Your task to perform on an android device: open chrome and create a bookmark for the current page Image 0: 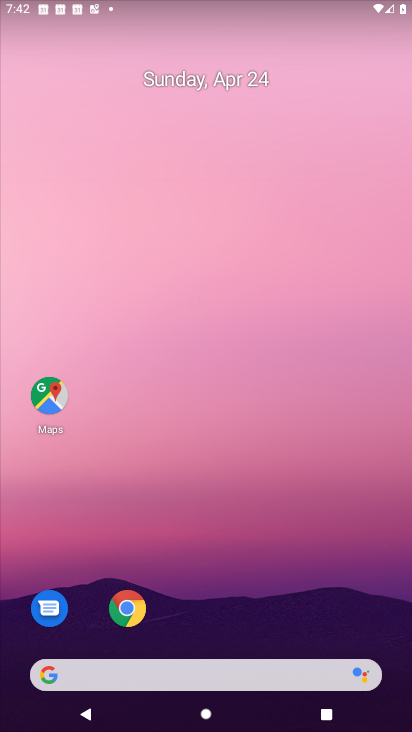
Step 0: drag from (232, 595) to (250, 141)
Your task to perform on an android device: open chrome and create a bookmark for the current page Image 1: 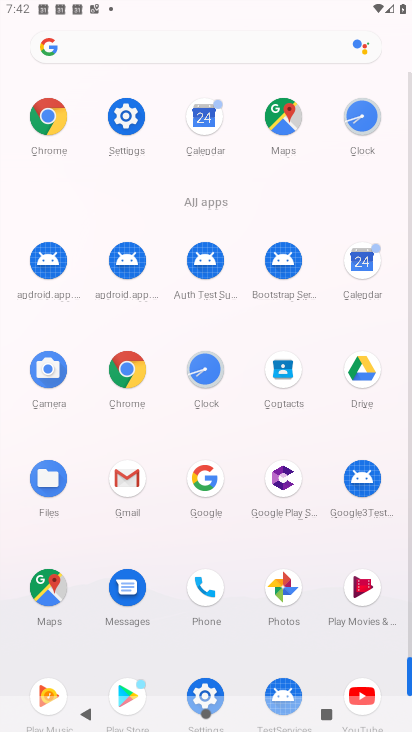
Step 1: click (122, 382)
Your task to perform on an android device: open chrome and create a bookmark for the current page Image 2: 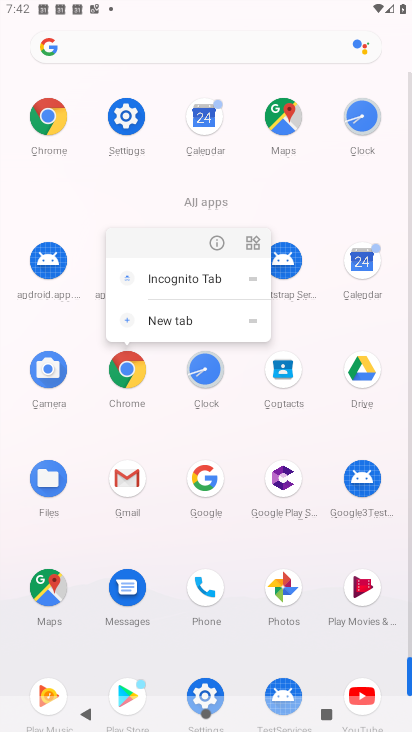
Step 2: click (124, 371)
Your task to perform on an android device: open chrome and create a bookmark for the current page Image 3: 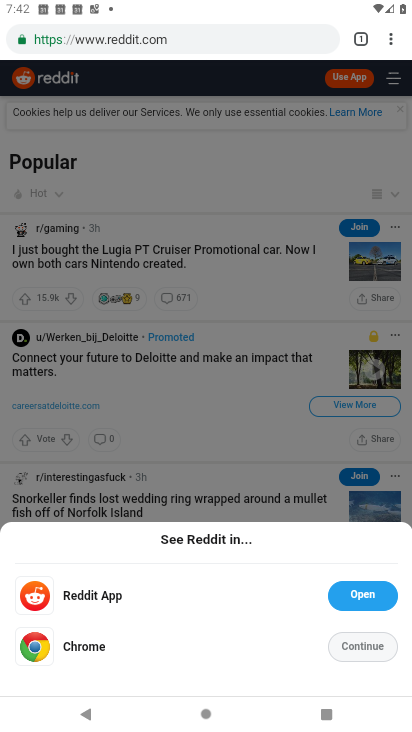
Step 3: click (278, 24)
Your task to perform on an android device: open chrome and create a bookmark for the current page Image 4: 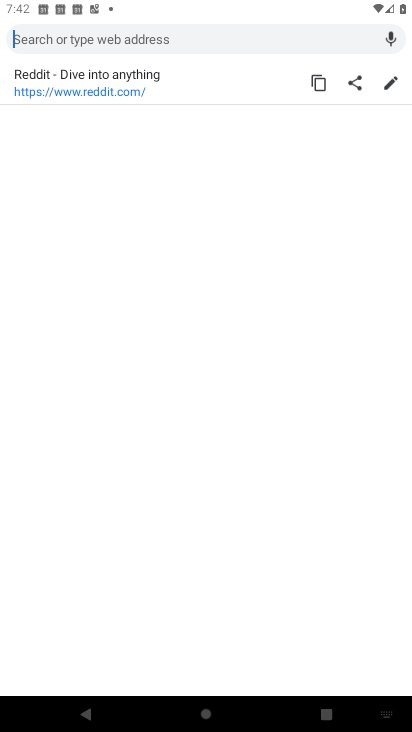
Step 4: press back button
Your task to perform on an android device: open chrome and create a bookmark for the current page Image 5: 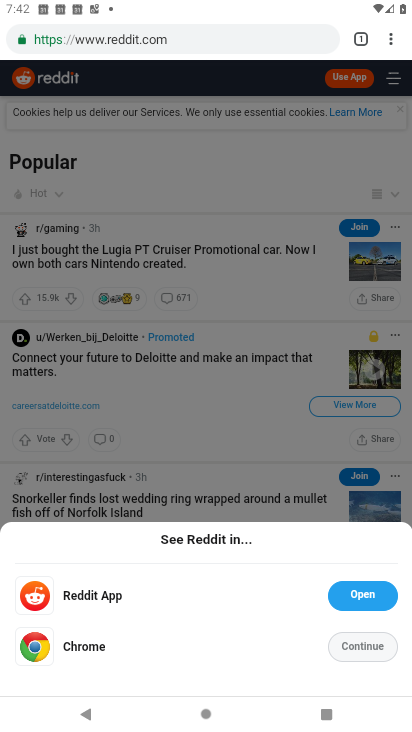
Step 5: click (394, 36)
Your task to perform on an android device: open chrome and create a bookmark for the current page Image 6: 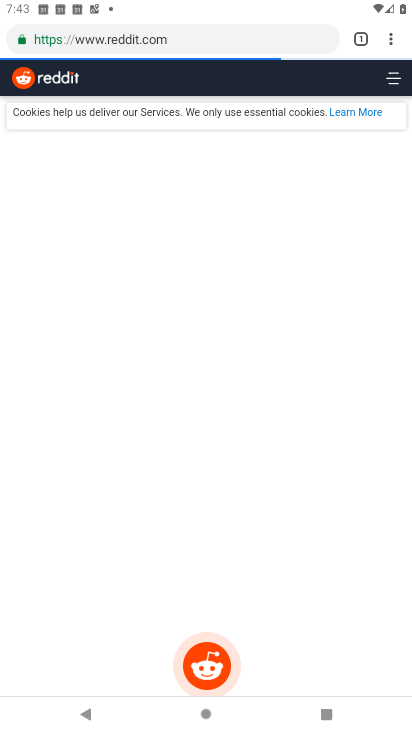
Step 6: drag from (392, 42) to (176, 21)
Your task to perform on an android device: open chrome and create a bookmark for the current page Image 7: 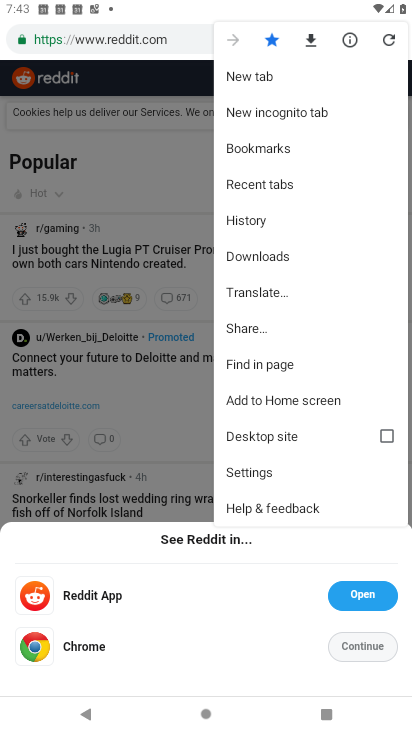
Step 7: click (151, 38)
Your task to perform on an android device: open chrome and create a bookmark for the current page Image 8: 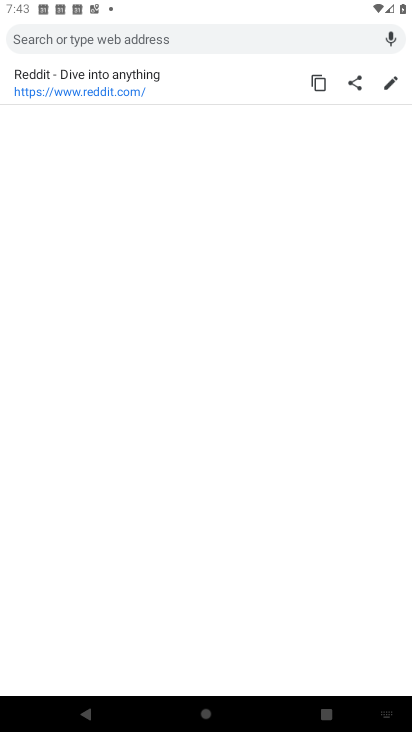
Step 8: type "fbnb"
Your task to perform on an android device: open chrome and create a bookmark for the current page Image 9: 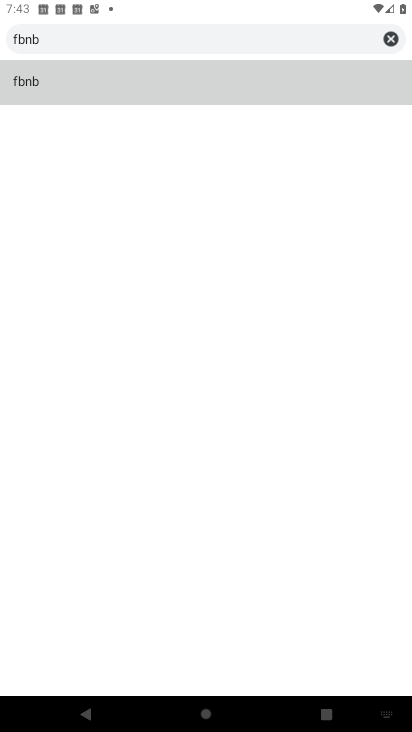
Step 9: click (189, 91)
Your task to perform on an android device: open chrome and create a bookmark for the current page Image 10: 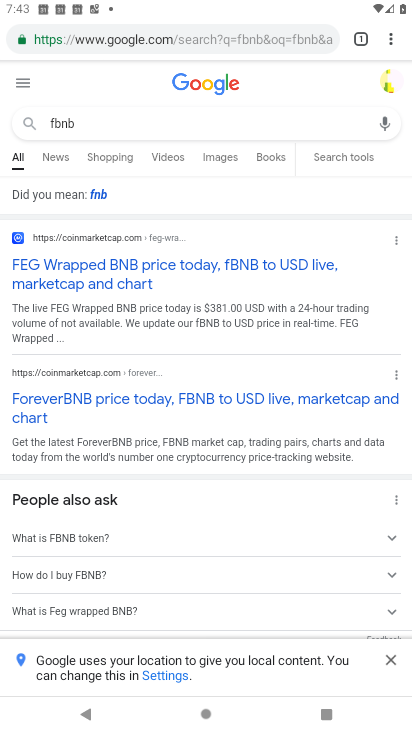
Step 10: task complete